Your task to perform on an android device: Play the last video I watched on Youtube Image 0: 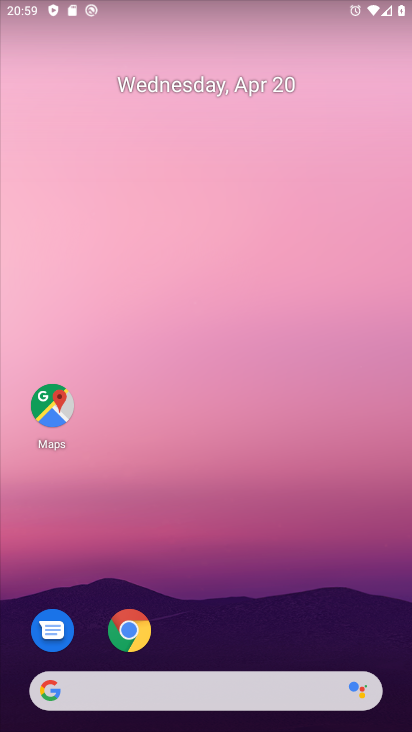
Step 0: drag from (279, 615) to (215, 118)
Your task to perform on an android device: Play the last video I watched on Youtube Image 1: 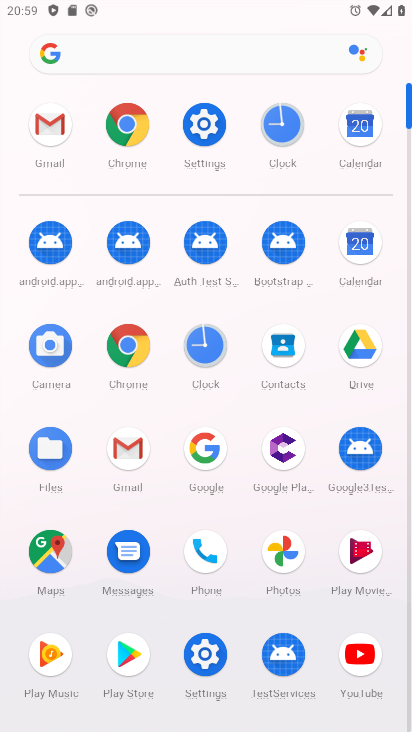
Step 1: click (358, 653)
Your task to perform on an android device: Play the last video I watched on Youtube Image 2: 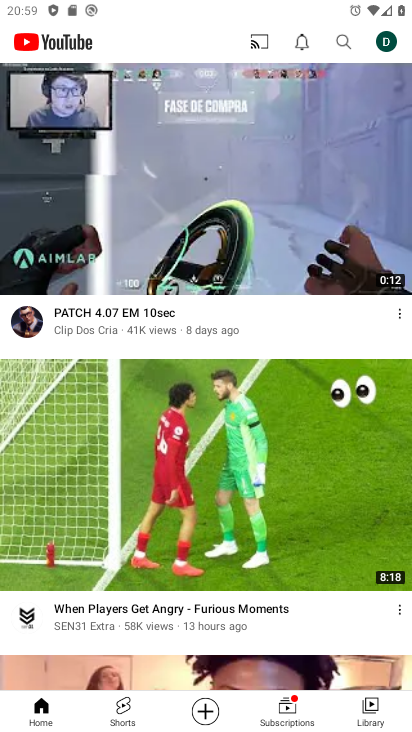
Step 2: click (368, 714)
Your task to perform on an android device: Play the last video I watched on Youtube Image 3: 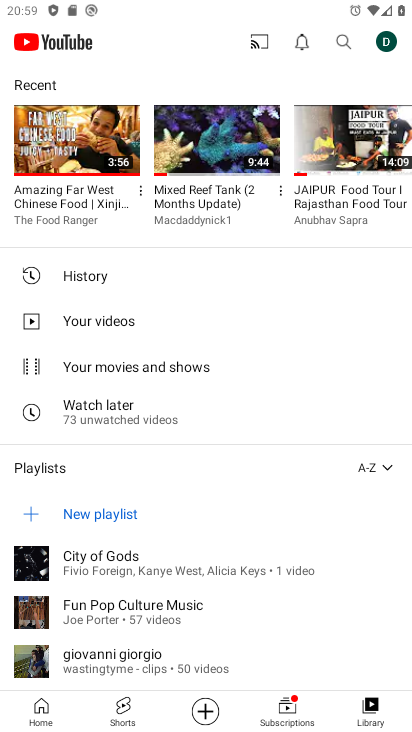
Step 3: click (74, 149)
Your task to perform on an android device: Play the last video I watched on Youtube Image 4: 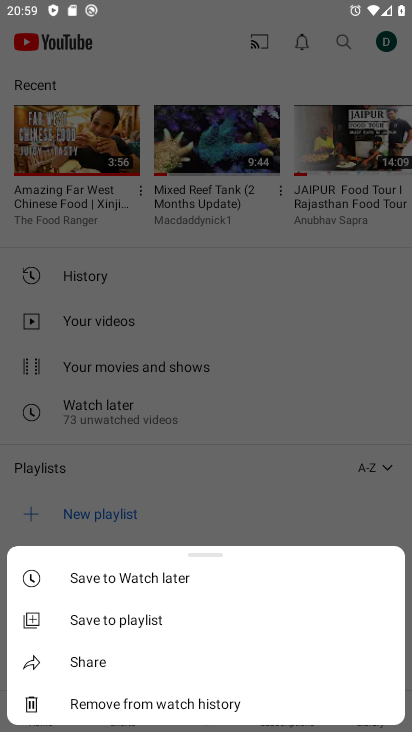
Step 4: click (105, 152)
Your task to perform on an android device: Play the last video I watched on Youtube Image 5: 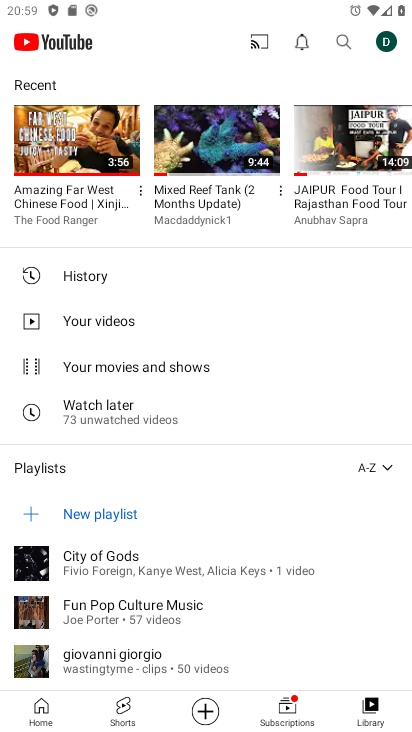
Step 5: click (70, 172)
Your task to perform on an android device: Play the last video I watched on Youtube Image 6: 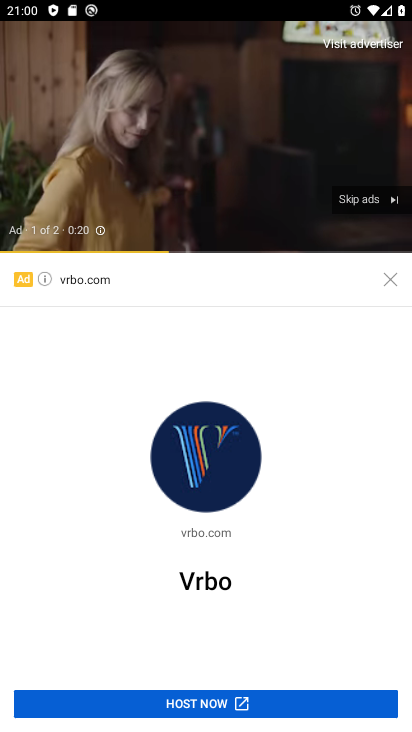
Step 6: click (377, 201)
Your task to perform on an android device: Play the last video I watched on Youtube Image 7: 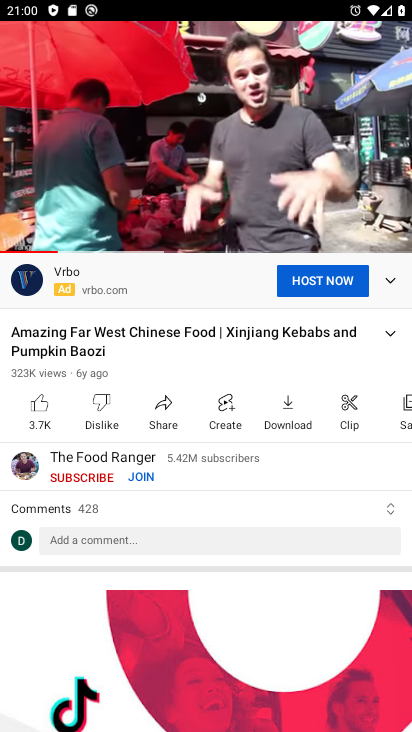
Step 7: click (377, 201)
Your task to perform on an android device: Play the last video I watched on Youtube Image 8: 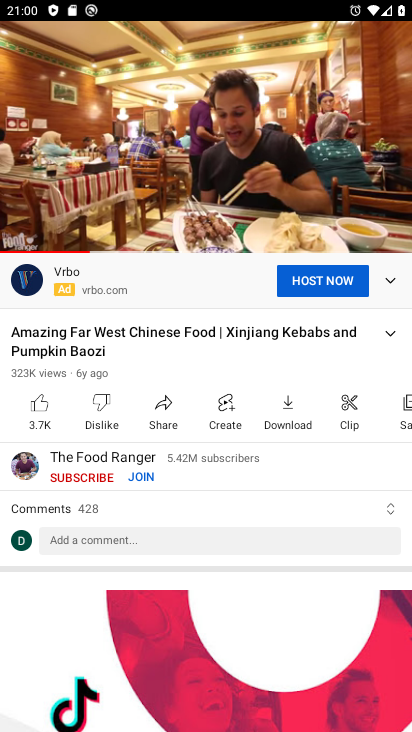
Step 8: task complete